Your task to perform on an android device: change the clock display to show seconds Image 0: 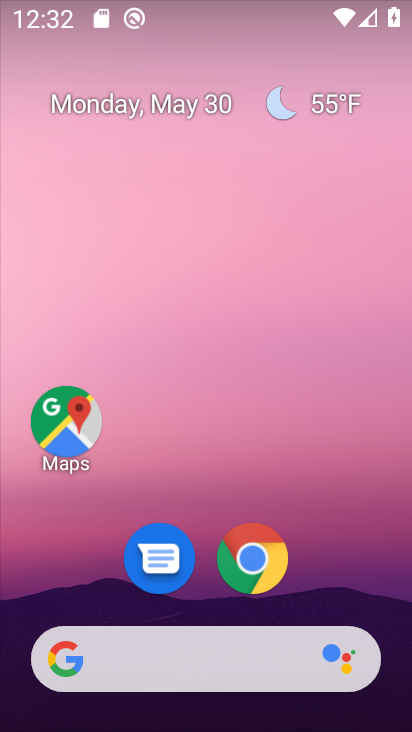
Step 0: drag from (322, 488) to (364, 4)
Your task to perform on an android device: change the clock display to show seconds Image 1: 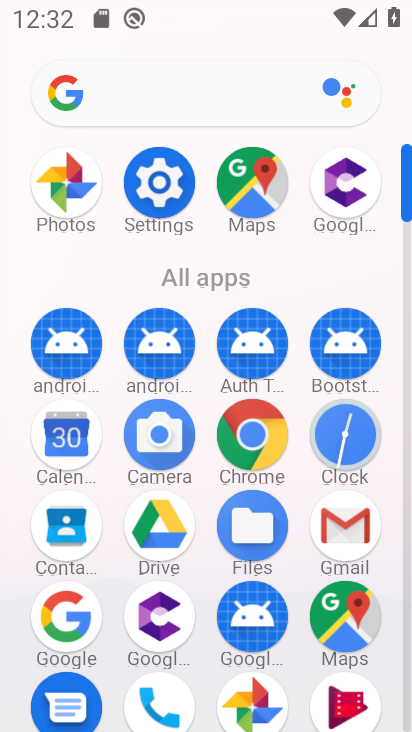
Step 1: click (340, 442)
Your task to perform on an android device: change the clock display to show seconds Image 2: 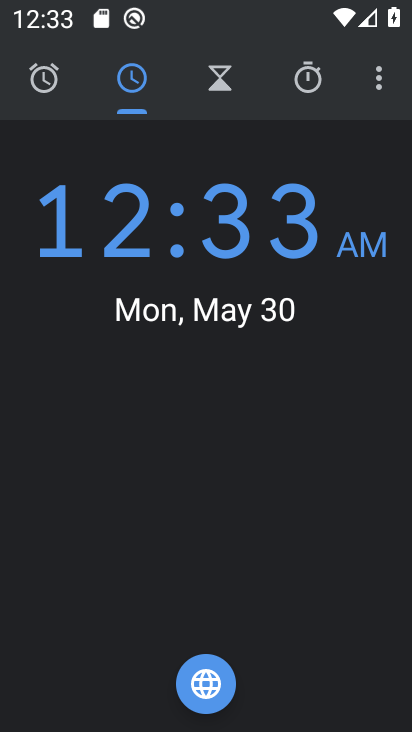
Step 2: click (381, 87)
Your task to perform on an android device: change the clock display to show seconds Image 3: 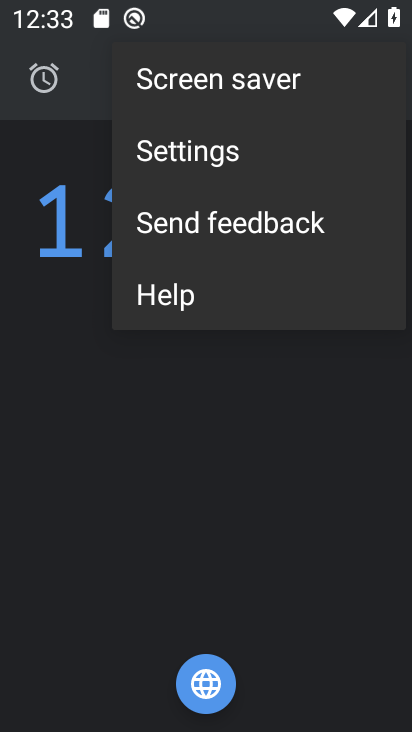
Step 3: click (232, 154)
Your task to perform on an android device: change the clock display to show seconds Image 4: 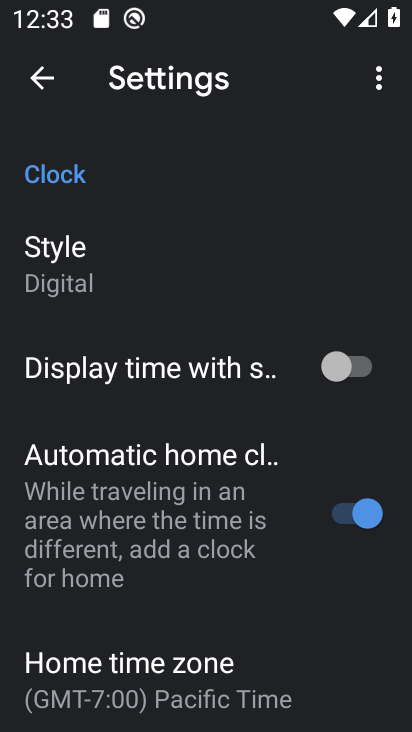
Step 4: click (46, 262)
Your task to perform on an android device: change the clock display to show seconds Image 5: 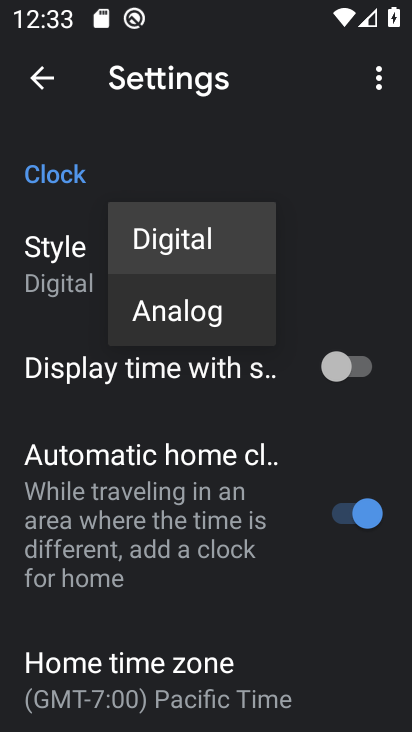
Step 5: click (313, 296)
Your task to perform on an android device: change the clock display to show seconds Image 6: 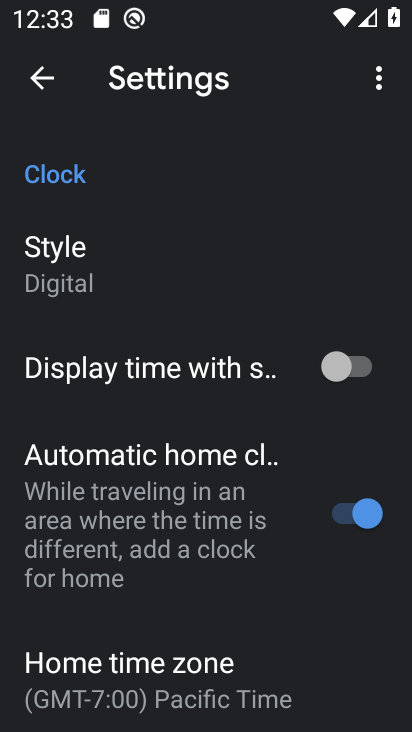
Step 6: click (348, 348)
Your task to perform on an android device: change the clock display to show seconds Image 7: 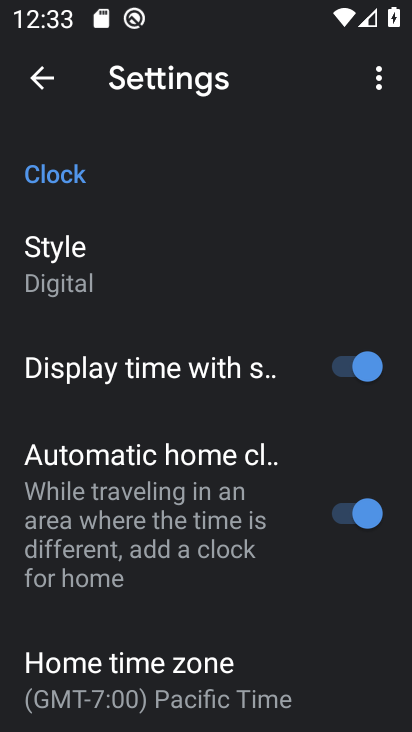
Step 7: task complete